Your task to perform on an android device: change notification settings in the gmail app Image 0: 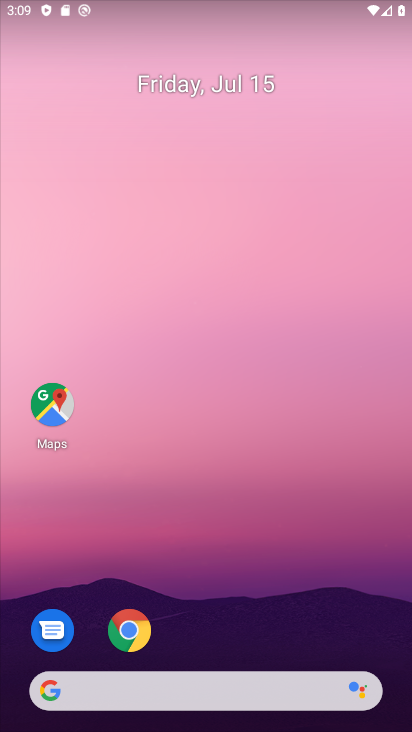
Step 0: drag from (310, 727) to (220, 98)
Your task to perform on an android device: change notification settings in the gmail app Image 1: 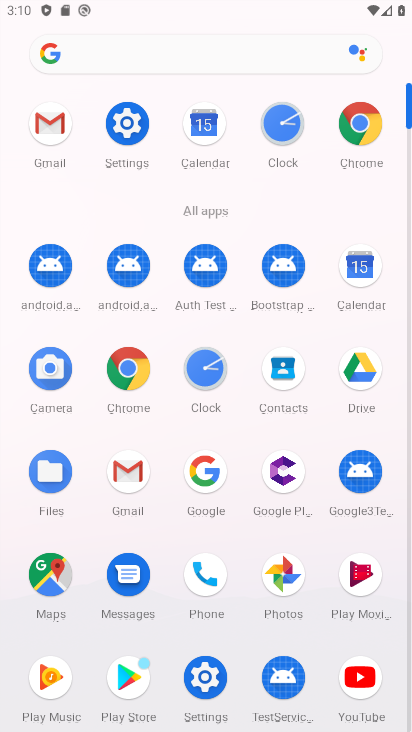
Step 1: click (33, 123)
Your task to perform on an android device: change notification settings in the gmail app Image 2: 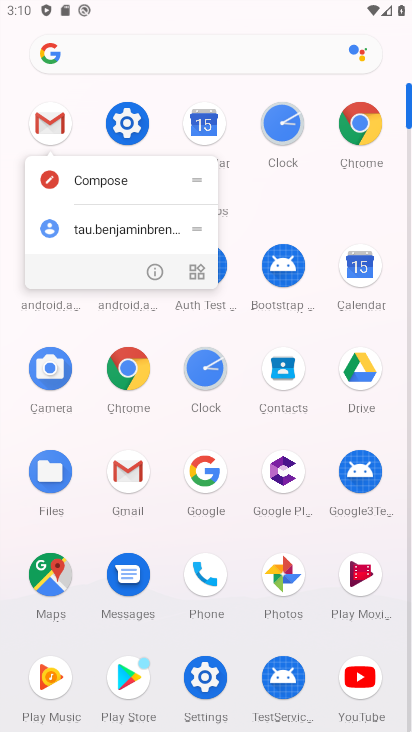
Step 2: click (162, 272)
Your task to perform on an android device: change notification settings in the gmail app Image 3: 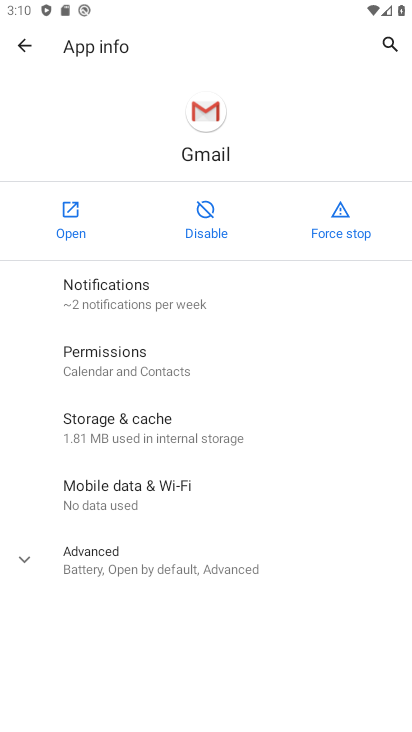
Step 3: click (159, 286)
Your task to perform on an android device: change notification settings in the gmail app Image 4: 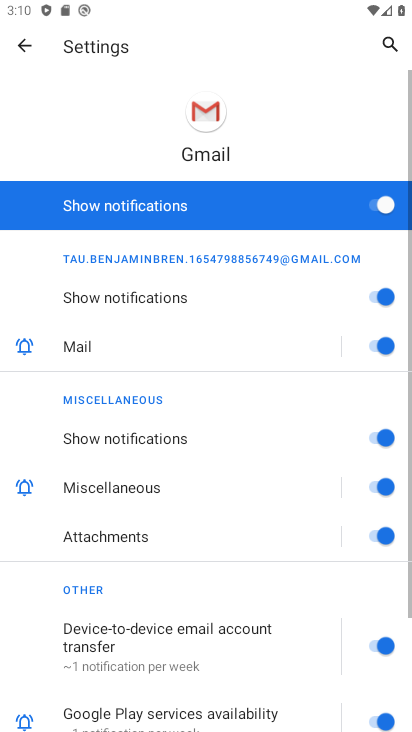
Step 4: click (388, 210)
Your task to perform on an android device: change notification settings in the gmail app Image 5: 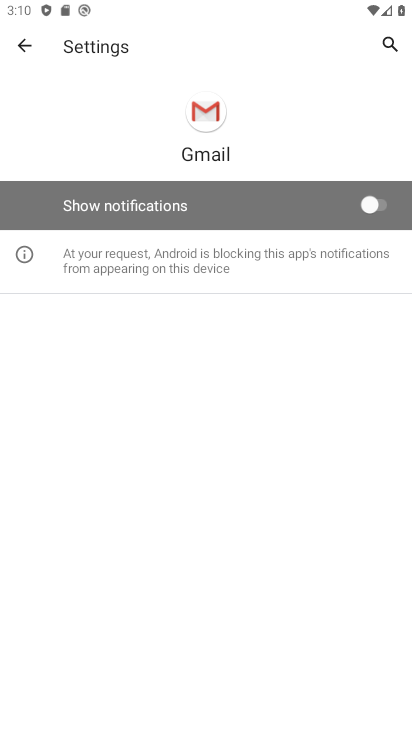
Step 5: task complete